Your task to perform on an android device: Show me recent news Image 0: 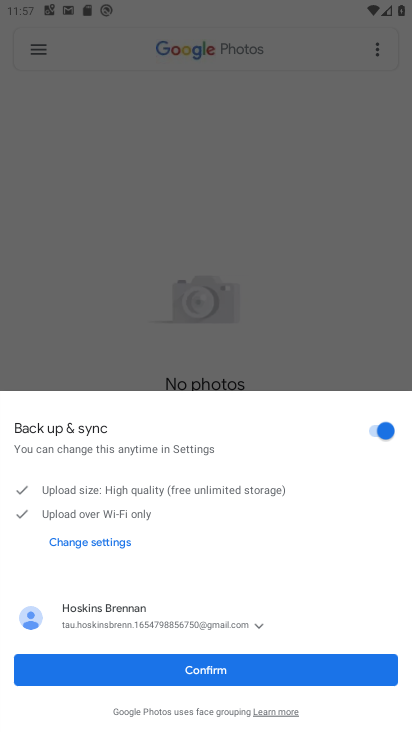
Step 0: press home button
Your task to perform on an android device: Show me recent news Image 1: 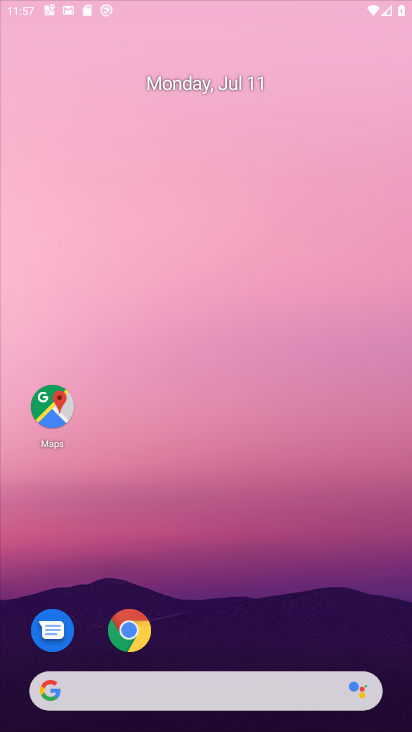
Step 1: drag from (171, 666) to (366, 665)
Your task to perform on an android device: Show me recent news Image 2: 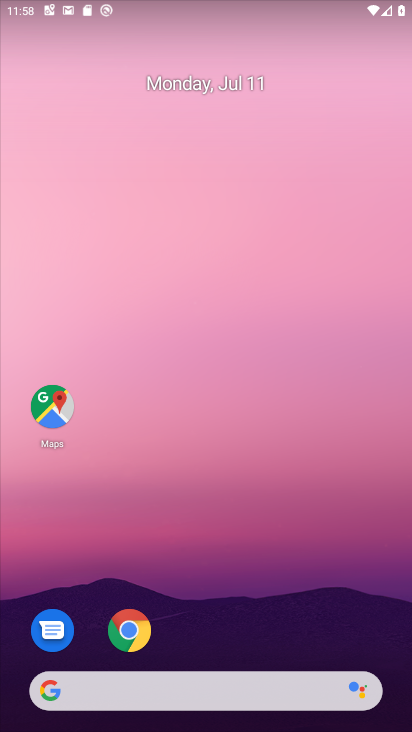
Step 2: drag from (216, 628) to (224, 113)
Your task to perform on an android device: Show me recent news Image 3: 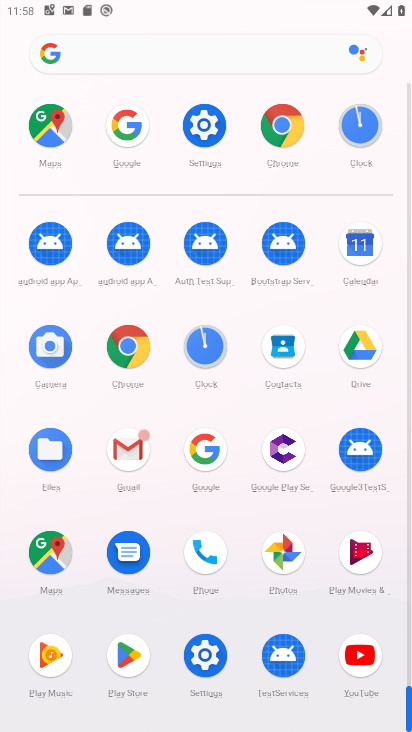
Step 3: click (296, 148)
Your task to perform on an android device: Show me recent news Image 4: 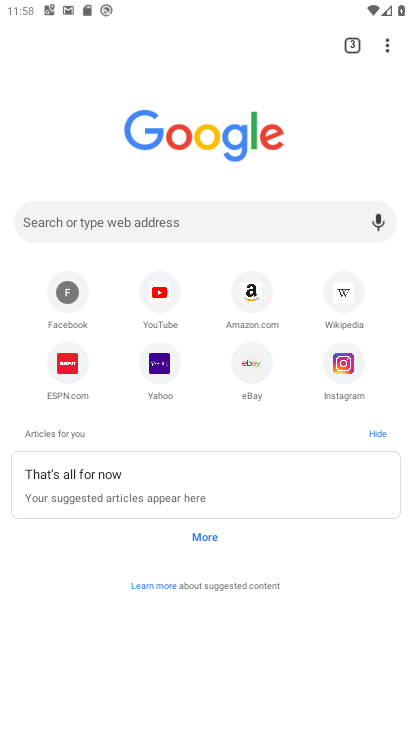
Step 4: click (185, 226)
Your task to perform on an android device: Show me recent news Image 5: 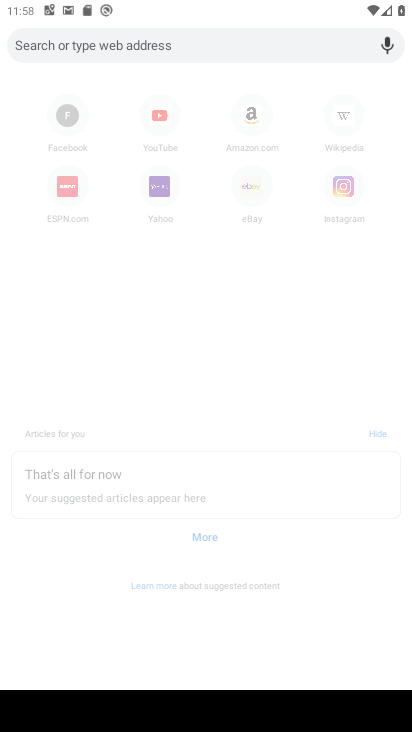
Step 5: type "news"
Your task to perform on an android device: Show me recent news Image 6: 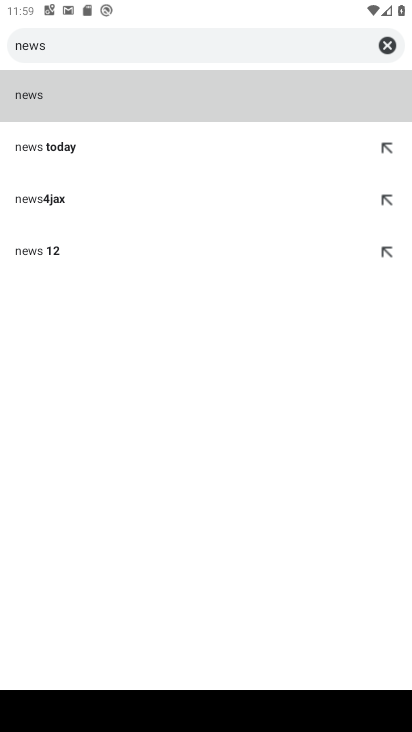
Step 6: click (71, 147)
Your task to perform on an android device: Show me recent news Image 7: 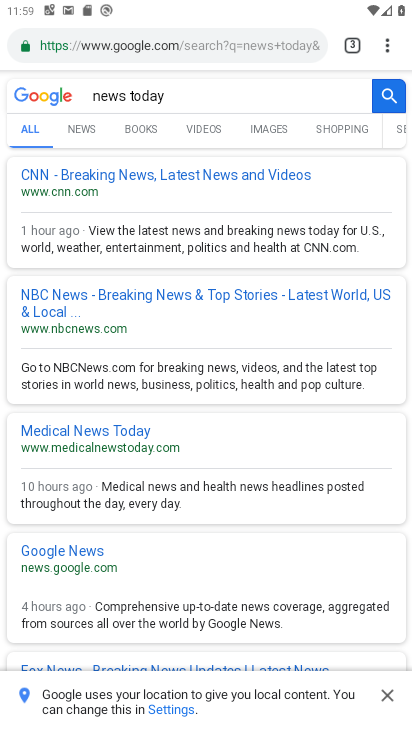
Step 7: task complete